Your task to perform on an android device: Go to display settings Image 0: 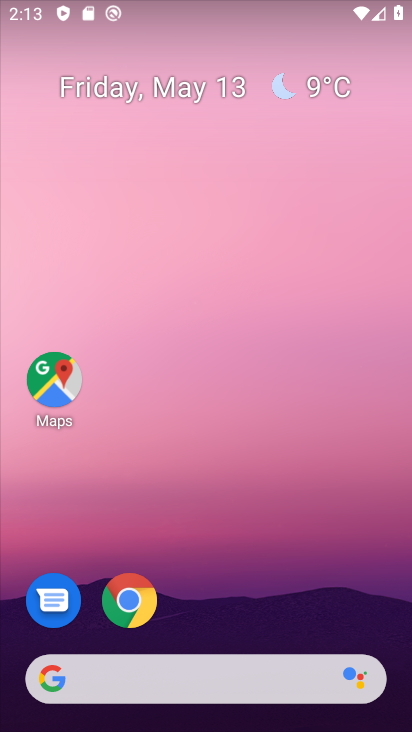
Step 0: drag from (221, 592) to (210, 62)
Your task to perform on an android device: Go to display settings Image 1: 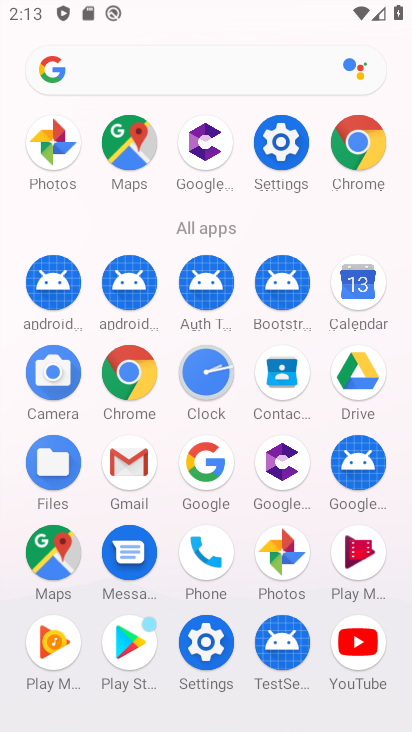
Step 1: click (286, 139)
Your task to perform on an android device: Go to display settings Image 2: 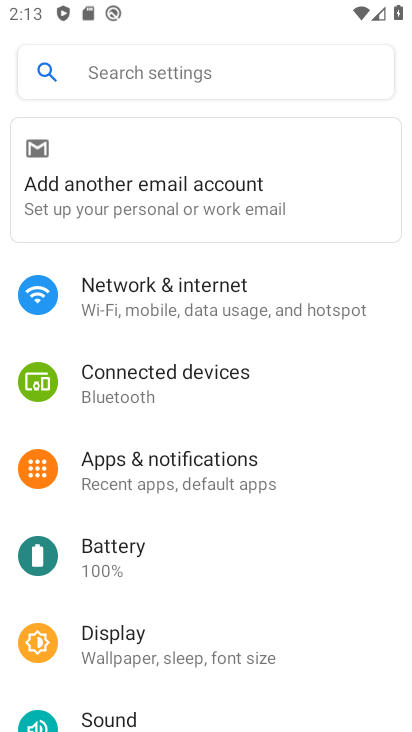
Step 2: click (183, 645)
Your task to perform on an android device: Go to display settings Image 3: 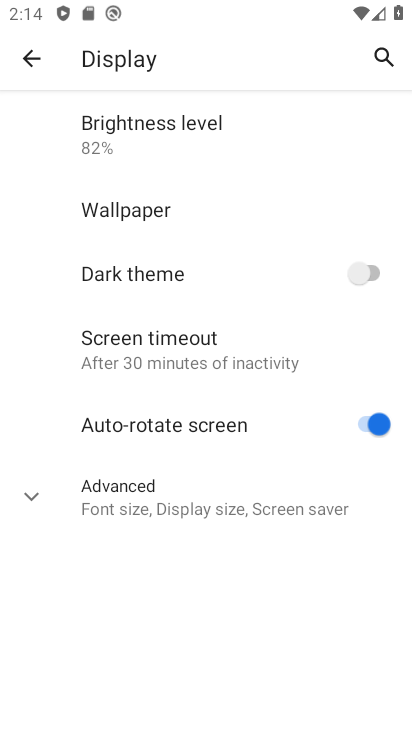
Step 3: task complete